Your task to perform on an android device: Search for vegetarian restaurants on Maps Image 0: 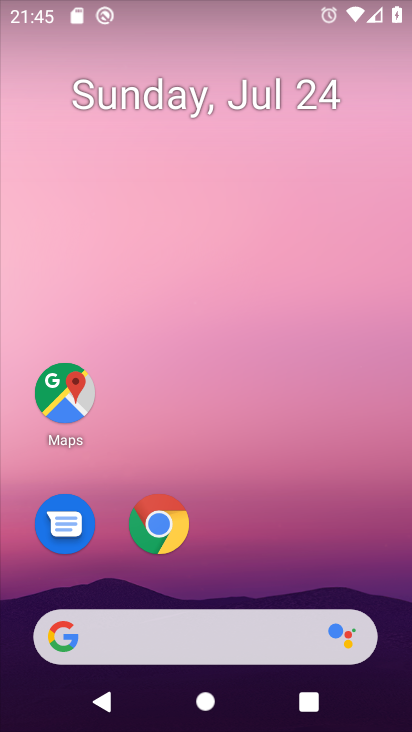
Step 0: click (62, 392)
Your task to perform on an android device: Search for vegetarian restaurants on Maps Image 1: 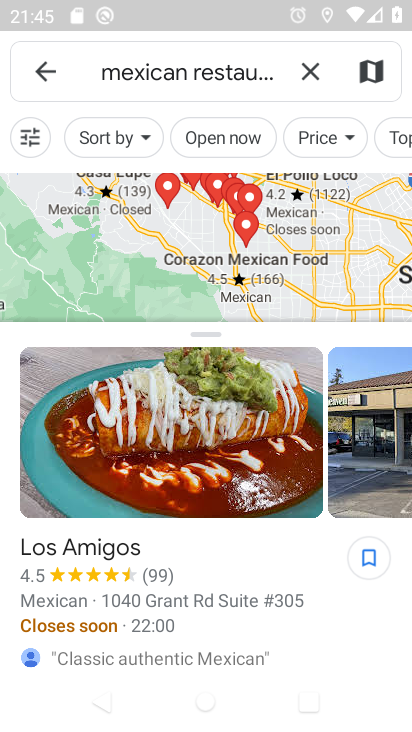
Step 1: click (313, 66)
Your task to perform on an android device: Search for vegetarian restaurants on Maps Image 2: 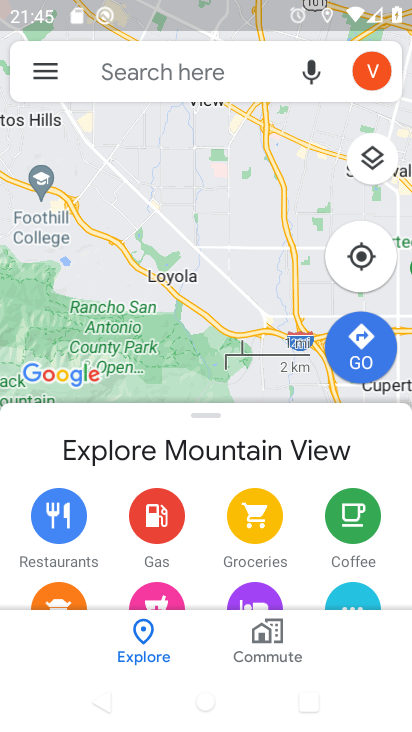
Step 2: click (223, 74)
Your task to perform on an android device: Search for vegetarian restaurants on Maps Image 3: 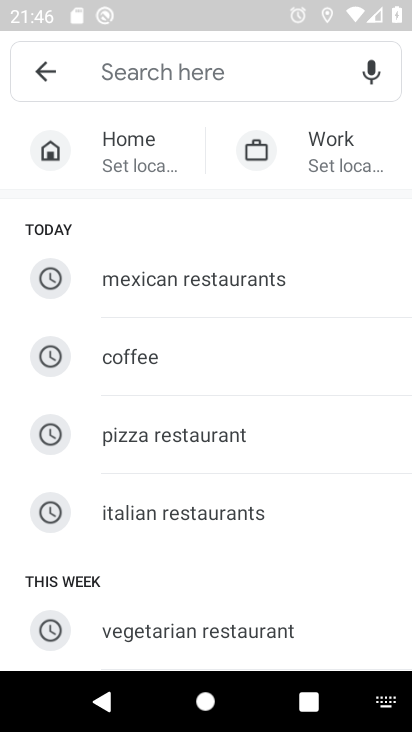
Step 3: click (204, 629)
Your task to perform on an android device: Search for vegetarian restaurants on Maps Image 4: 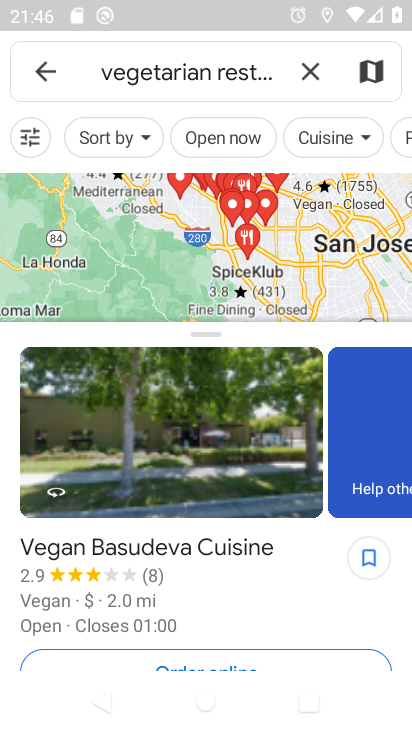
Step 4: task complete